Your task to perform on an android device: Open Google Image 0: 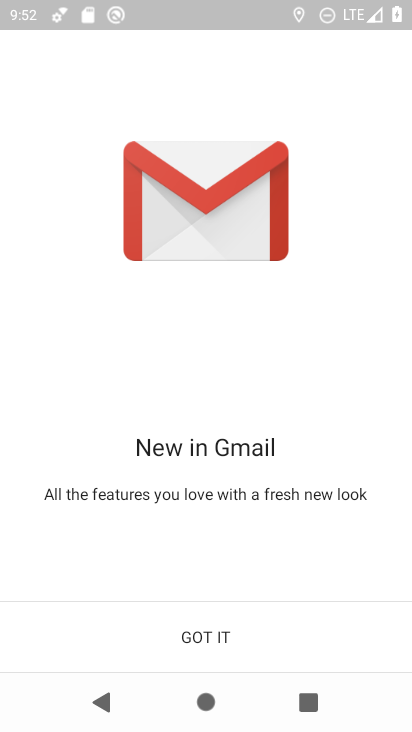
Step 0: press home button
Your task to perform on an android device: Open Google Image 1: 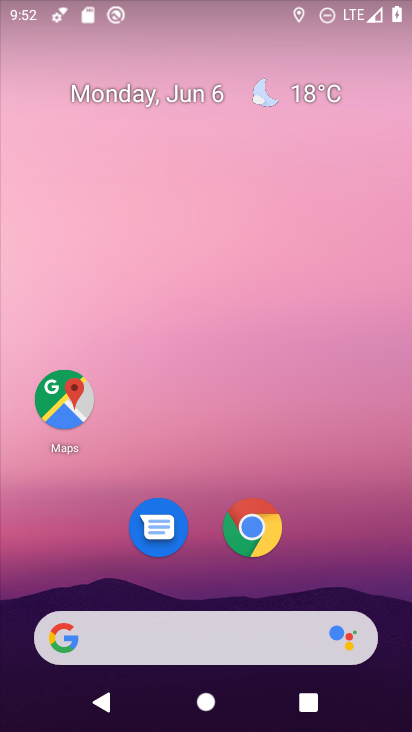
Step 1: drag from (368, 567) to (399, 320)
Your task to perform on an android device: Open Google Image 2: 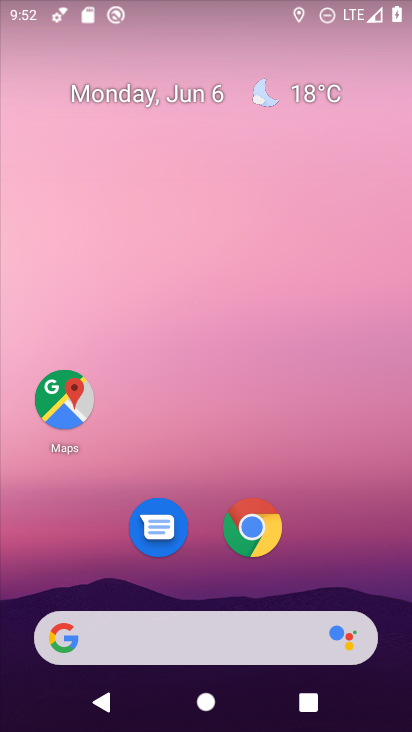
Step 2: drag from (350, 576) to (384, 115)
Your task to perform on an android device: Open Google Image 3: 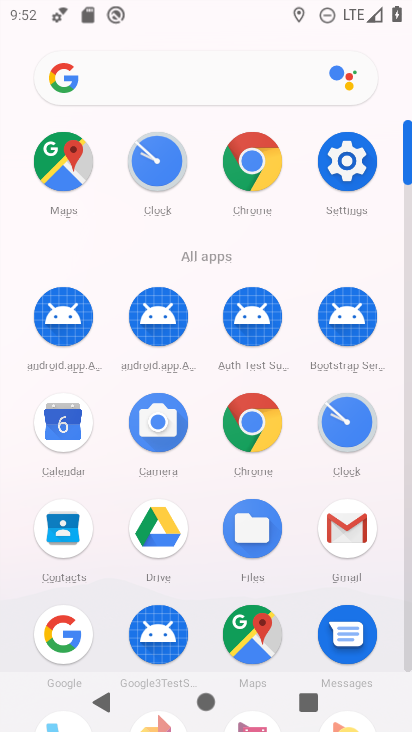
Step 3: click (73, 633)
Your task to perform on an android device: Open Google Image 4: 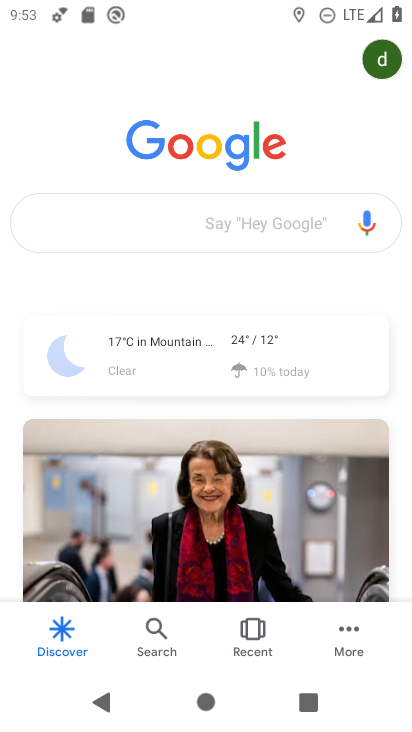
Step 4: task complete